Your task to perform on an android device: snooze an email in the gmail app Image 0: 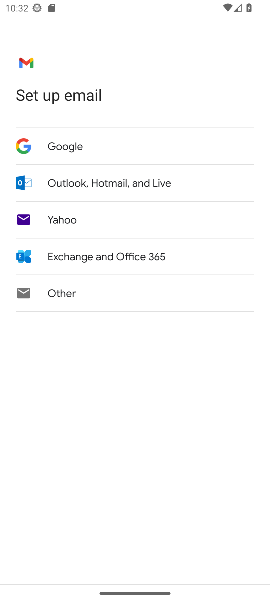
Step 0: press back button
Your task to perform on an android device: snooze an email in the gmail app Image 1: 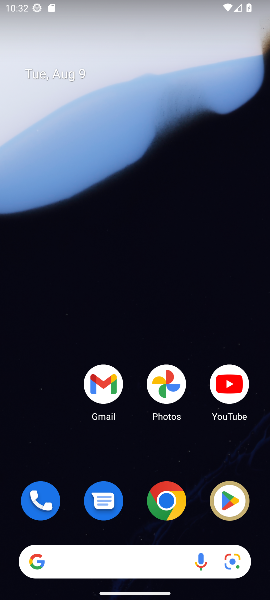
Step 1: click (100, 379)
Your task to perform on an android device: snooze an email in the gmail app Image 2: 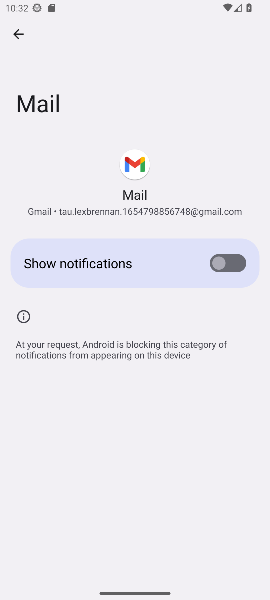
Step 2: click (19, 36)
Your task to perform on an android device: snooze an email in the gmail app Image 3: 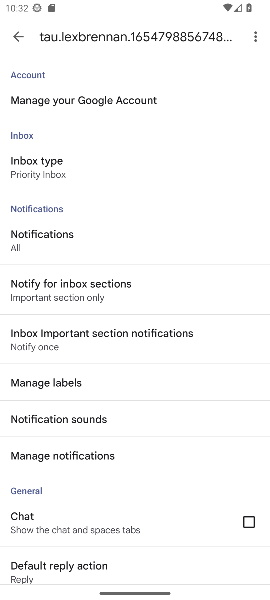
Step 3: click (19, 36)
Your task to perform on an android device: snooze an email in the gmail app Image 4: 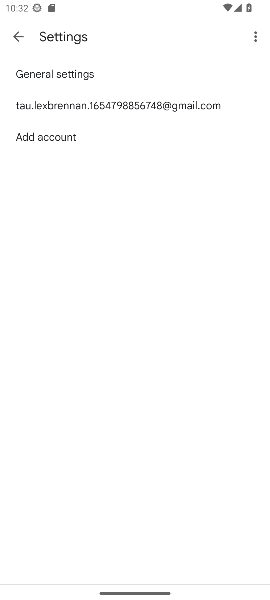
Step 4: click (19, 36)
Your task to perform on an android device: snooze an email in the gmail app Image 5: 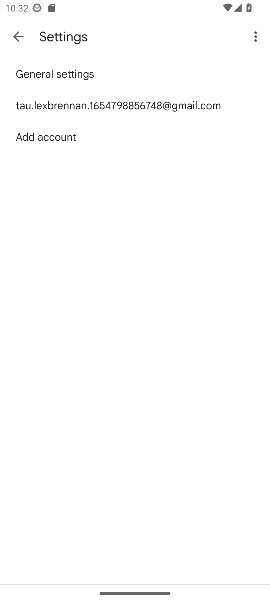
Step 5: click (19, 36)
Your task to perform on an android device: snooze an email in the gmail app Image 6: 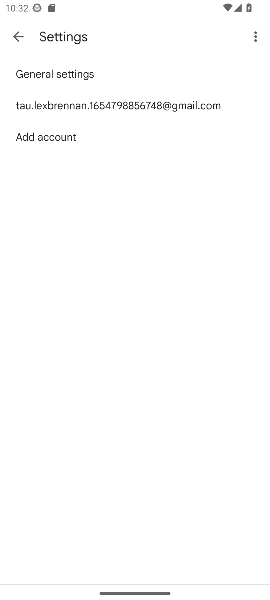
Step 6: click (19, 36)
Your task to perform on an android device: snooze an email in the gmail app Image 7: 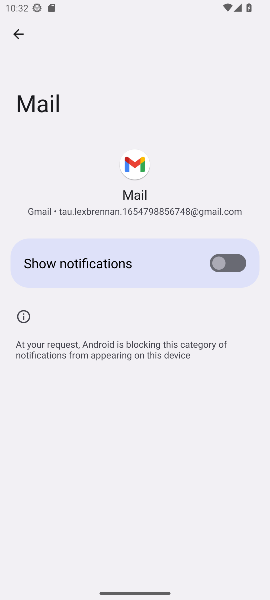
Step 7: click (19, 36)
Your task to perform on an android device: snooze an email in the gmail app Image 8: 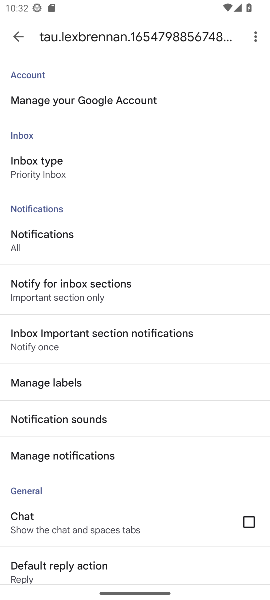
Step 8: click (19, 36)
Your task to perform on an android device: snooze an email in the gmail app Image 9: 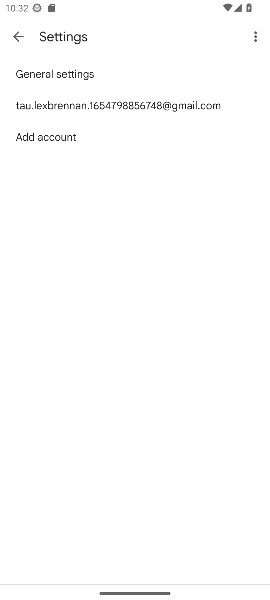
Step 9: click (19, 36)
Your task to perform on an android device: snooze an email in the gmail app Image 10: 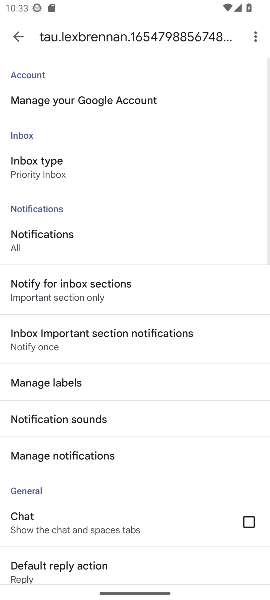
Step 10: click (19, 36)
Your task to perform on an android device: snooze an email in the gmail app Image 11: 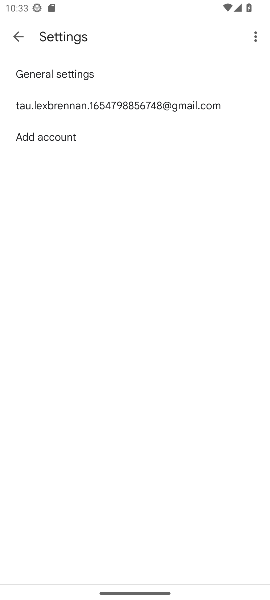
Step 11: click (19, 36)
Your task to perform on an android device: snooze an email in the gmail app Image 12: 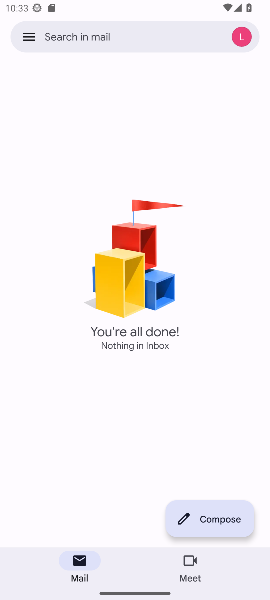
Step 12: click (29, 36)
Your task to perform on an android device: snooze an email in the gmail app Image 13: 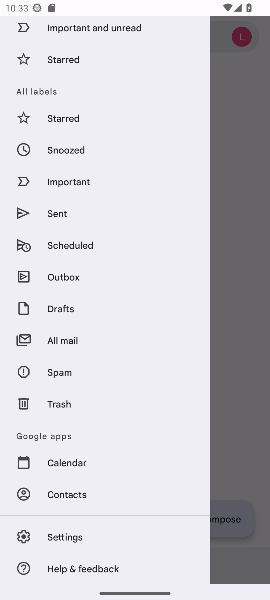
Step 13: click (78, 338)
Your task to perform on an android device: snooze an email in the gmail app Image 14: 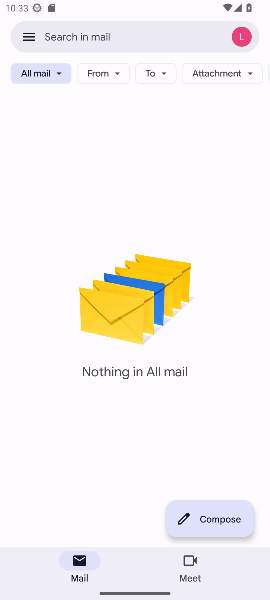
Step 14: task complete